Your task to perform on an android device: Open the calendar app, open the side menu, and click the "Day" option Image 0: 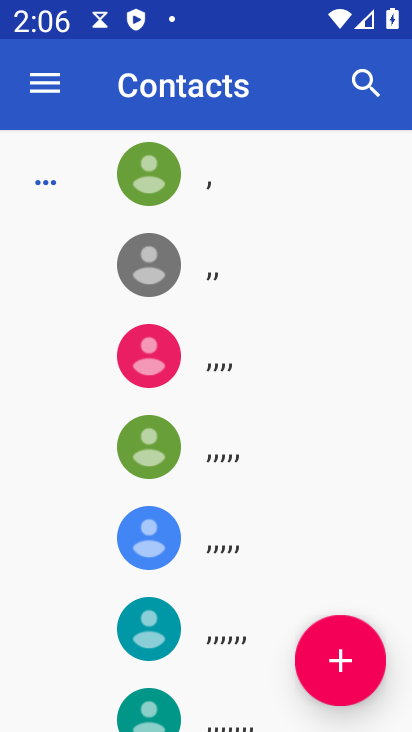
Step 0: press back button
Your task to perform on an android device: Open the calendar app, open the side menu, and click the "Day" option Image 1: 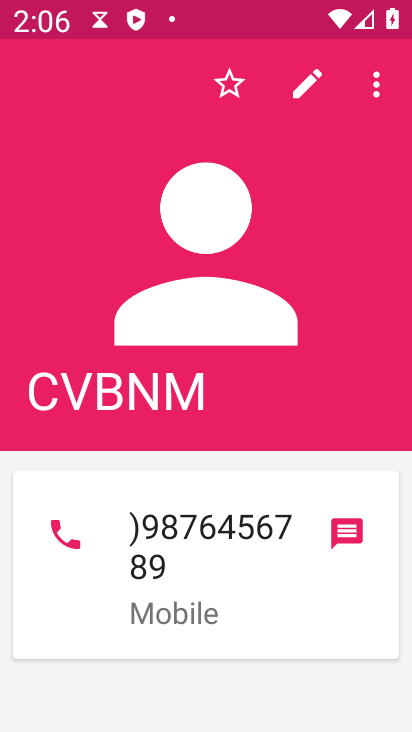
Step 1: press back button
Your task to perform on an android device: Open the calendar app, open the side menu, and click the "Day" option Image 2: 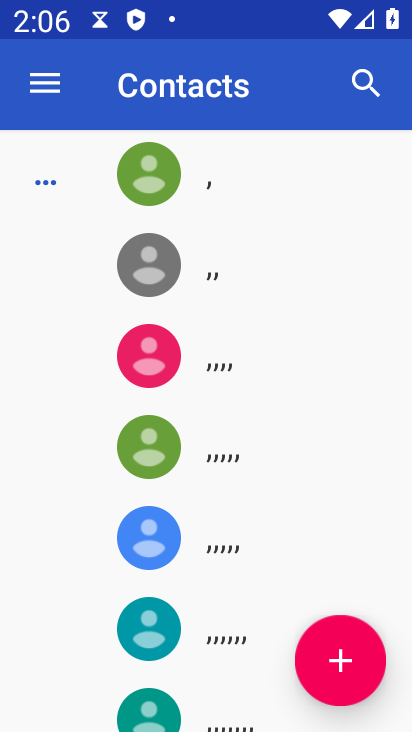
Step 2: press home button
Your task to perform on an android device: Open the calendar app, open the side menu, and click the "Day" option Image 3: 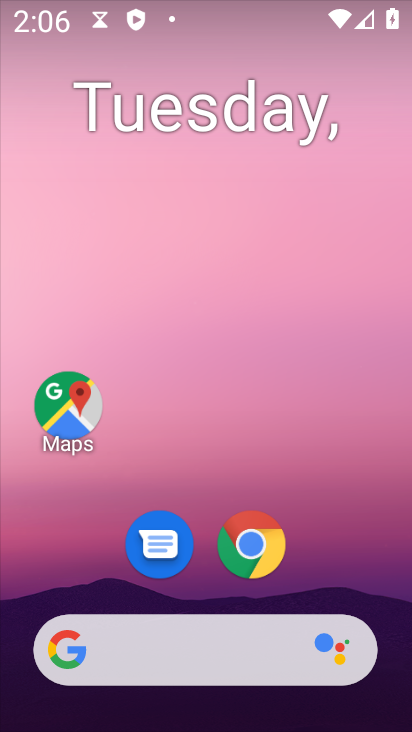
Step 3: drag from (343, 552) to (227, 69)
Your task to perform on an android device: Open the calendar app, open the side menu, and click the "Day" option Image 4: 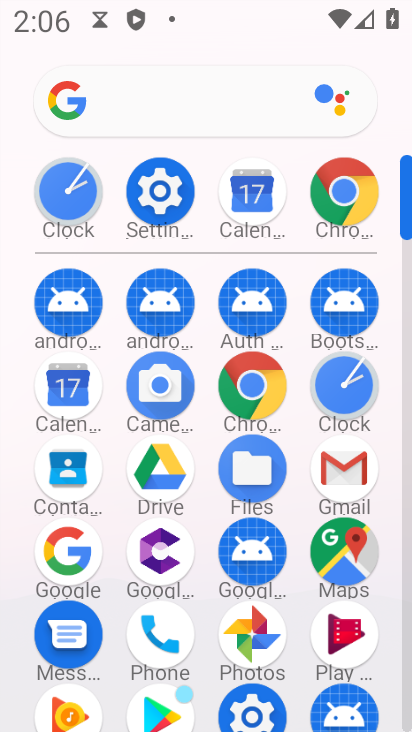
Step 4: drag from (10, 567) to (9, 251)
Your task to perform on an android device: Open the calendar app, open the side menu, and click the "Day" option Image 5: 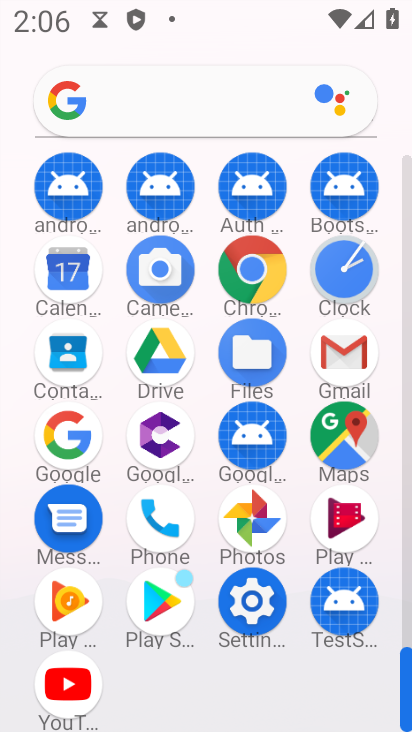
Step 5: click (65, 267)
Your task to perform on an android device: Open the calendar app, open the side menu, and click the "Day" option Image 6: 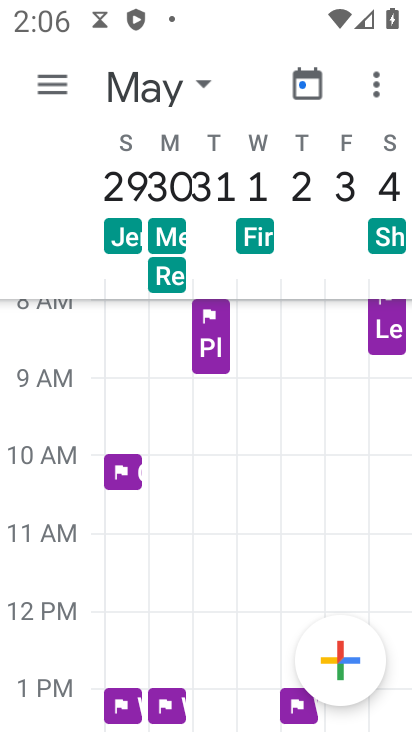
Step 6: click (41, 62)
Your task to perform on an android device: Open the calendar app, open the side menu, and click the "Day" option Image 7: 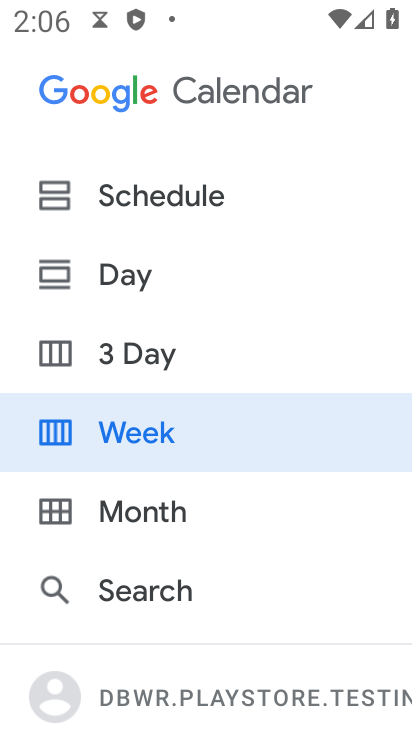
Step 7: click (130, 277)
Your task to perform on an android device: Open the calendar app, open the side menu, and click the "Day" option Image 8: 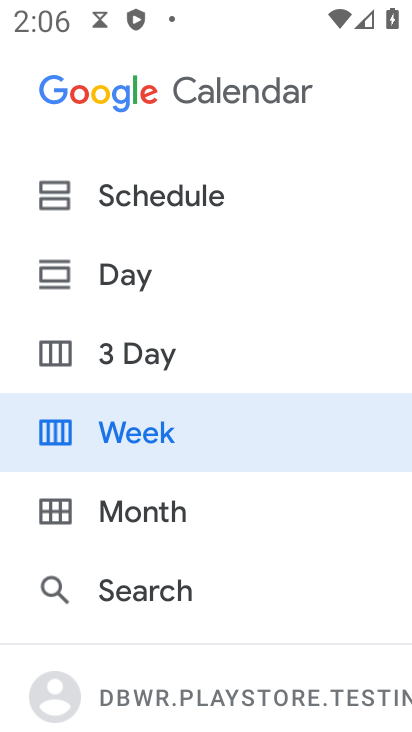
Step 8: click (134, 273)
Your task to perform on an android device: Open the calendar app, open the side menu, and click the "Day" option Image 9: 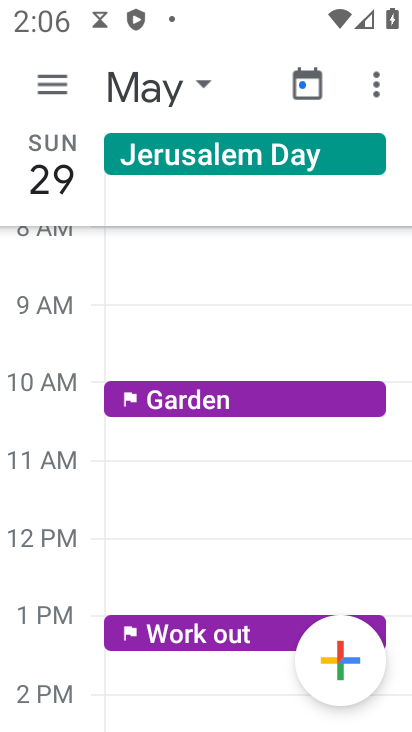
Step 9: click (49, 77)
Your task to perform on an android device: Open the calendar app, open the side menu, and click the "Day" option Image 10: 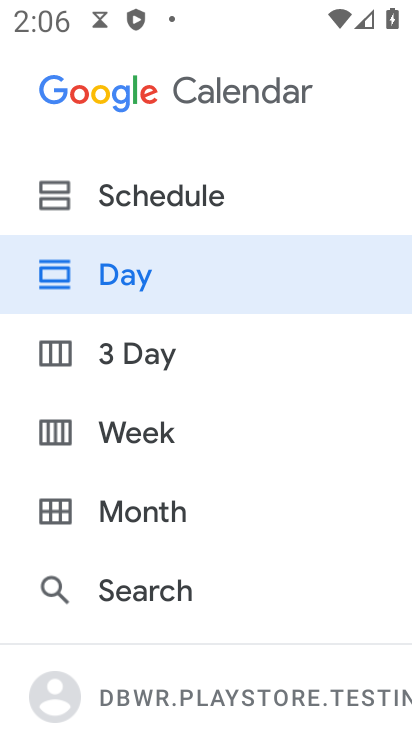
Step 10: click (134, 296)
Your task to perform on an android device: Open the calendar app, open the side menu, and click the "Day" option Image 11: 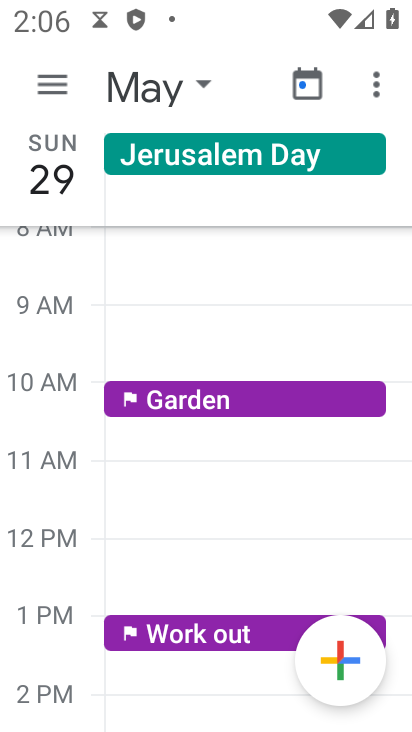
Step 11: task complete